Your task to perform on an android device: open a new tab in the chrome app Image 0: 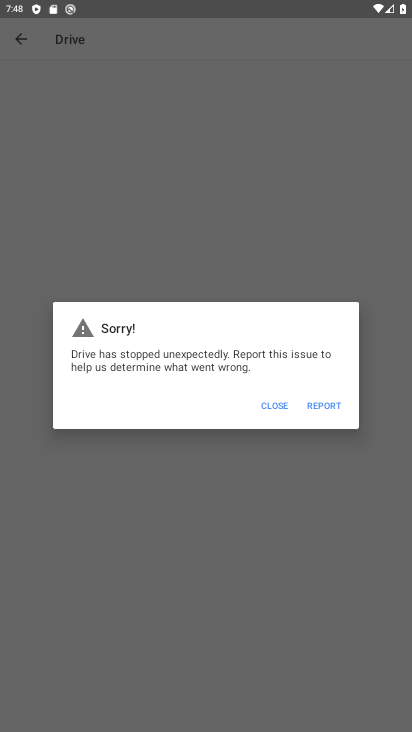
Step 0: press home button
Your task to perform on an android device: open a new tab in the chrome app Image 1: 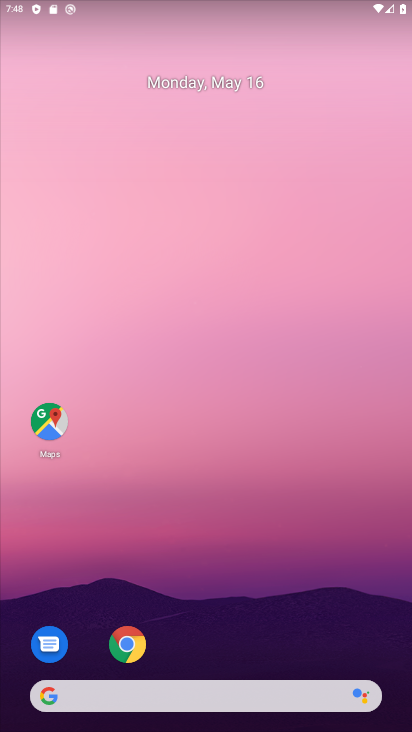
Step 1: click (140, 639)
Your task to perform on an android device: open a new tab in the chrome app Image 2: 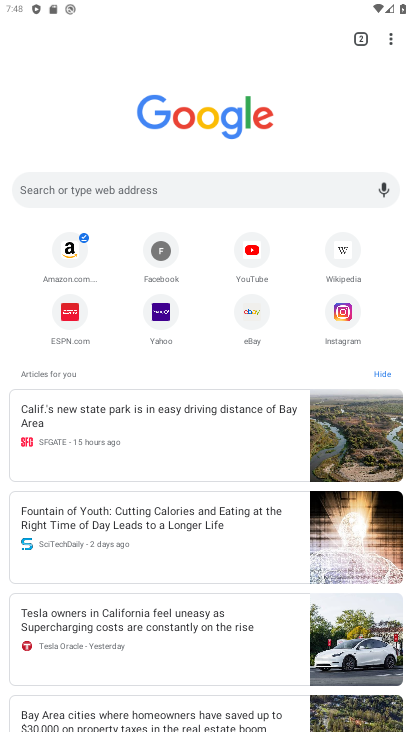
Step 2: click (389, 42)
Your task to perform on an android device: open a new tab in the chrome app Image 3: 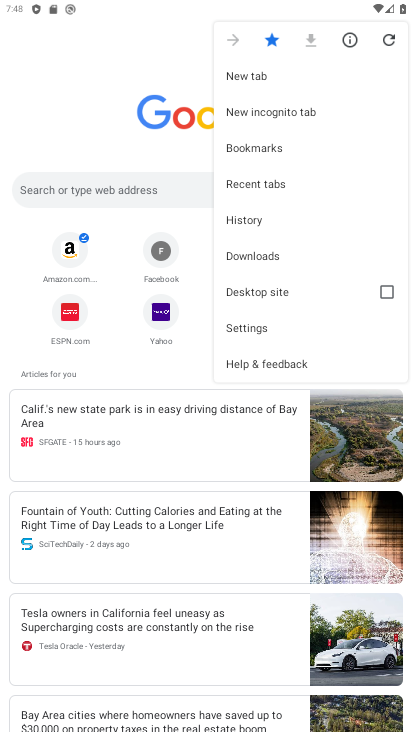
Step 3: click (323, 75)
Your task to perform on an android device: open a new tab in the chrome app Image 4: 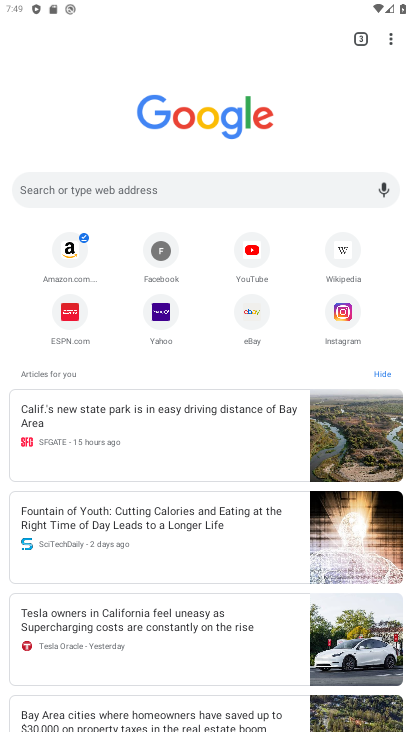
Step 4: task complete